Your task to perform on an android device: When is my next appointment? Image 0: 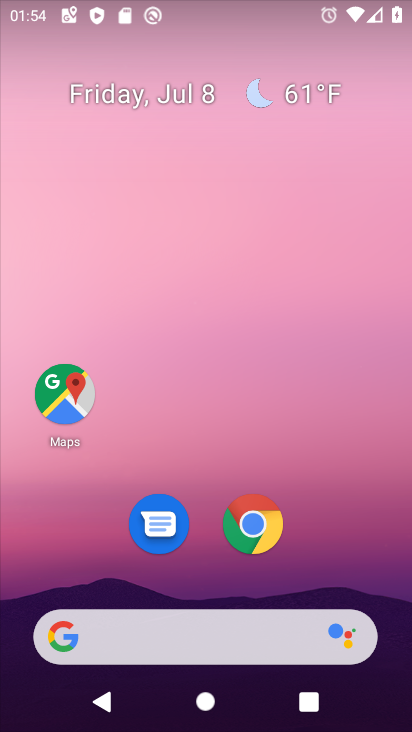
Step 0: drag from (313, 531) to (323, 3)
Your task to perform on an android device: When is my next appointment? Image 1: 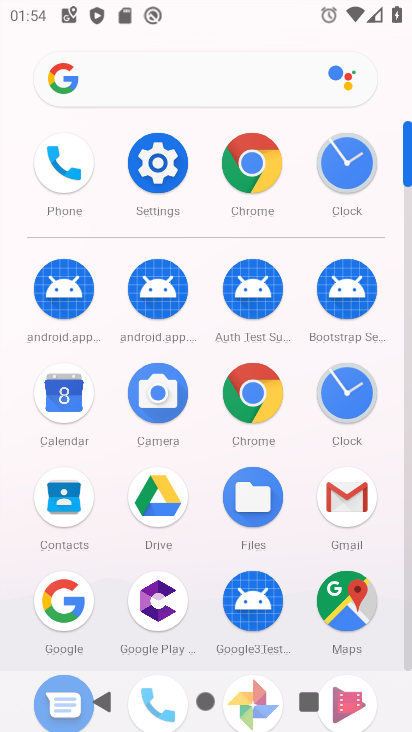
Step 1: click (65, 404)
Your task to perform on an android device: When is my next appointment? Image 2: 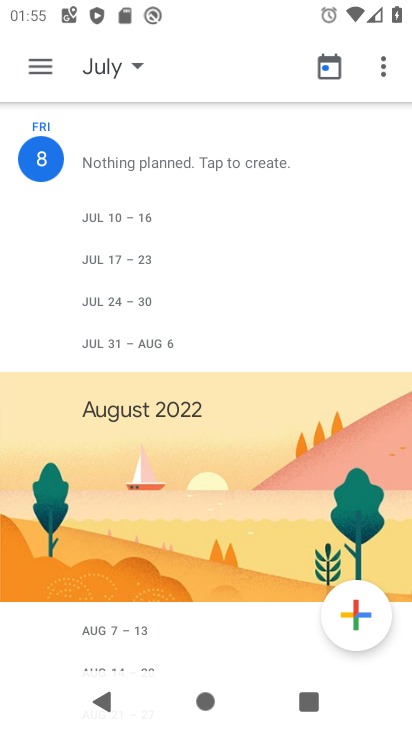
Step 2: task complete